Your task to perform on an android device: Search for dining room chairs on Crate & Barrel Image 0: 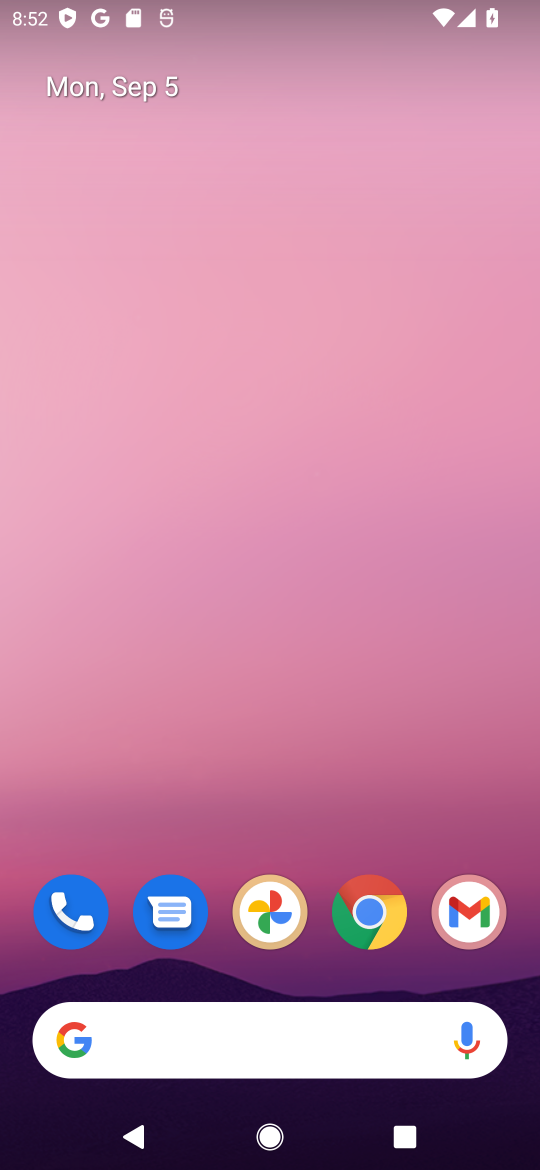
Step 0: click (370, 921)
Your task to perform on an android device: Search for dining room chairs on Crate & Barrel Image 1: 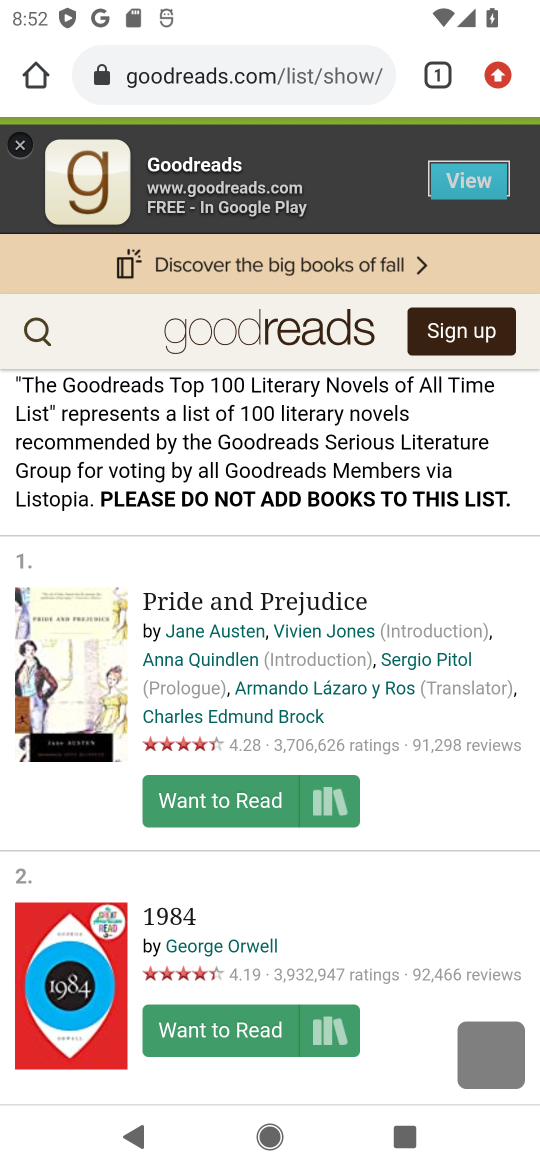
Step 1: click (232, 83)
Your task to perform on an android device: Search for dining room chairs on Crate & Barrel Image 2: 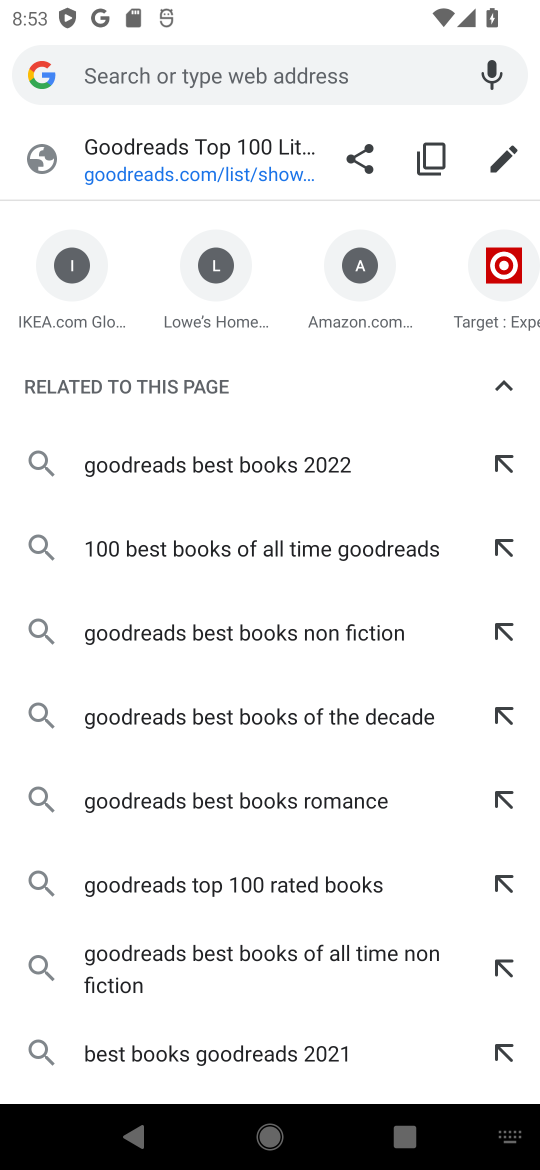
Step 2: type "crate & barrel"
Your task to perform on an android device: Search for dining room chairs on Crate & Barrel Image 3: 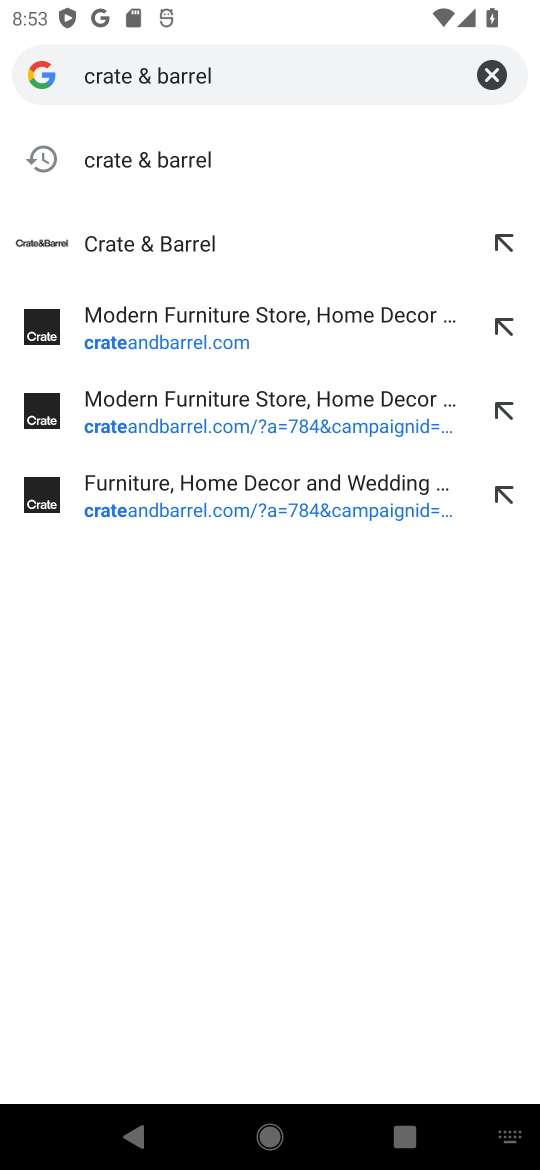
Step 3: press enter
Your task to perform on an android device: Search for dining room chairs on Crate & Barrel Image 4: 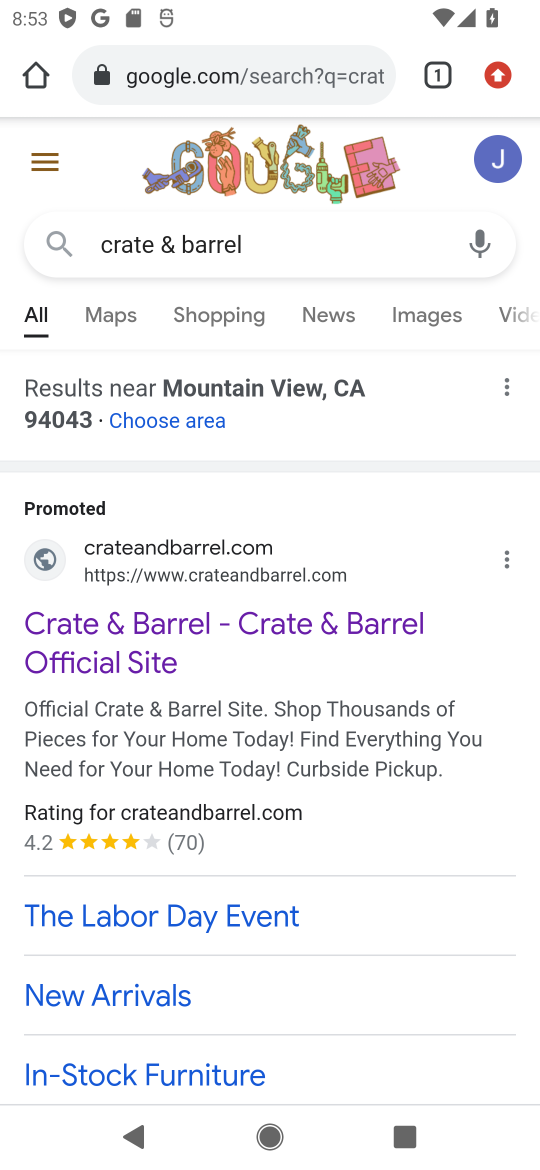
Step 4: click (131, 636)
Your task to perform on an android device: Search for dining room chairs on Crate & Barrel Image 5: 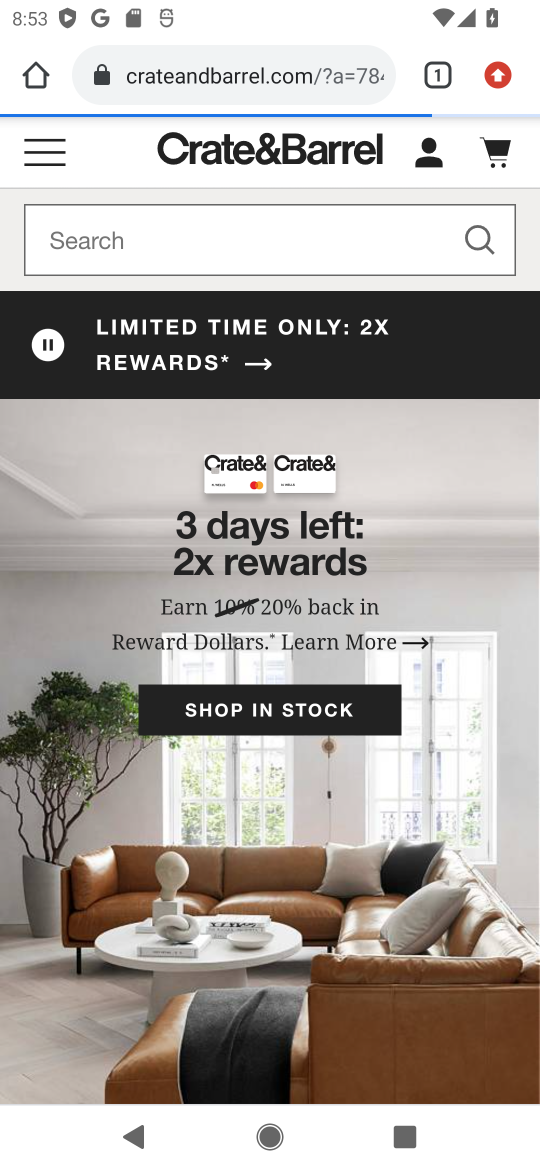
Step 5: click (242, 259)
Your task to perform on an android device: Search for dining room chairs on Crate & Barrel Image 6: 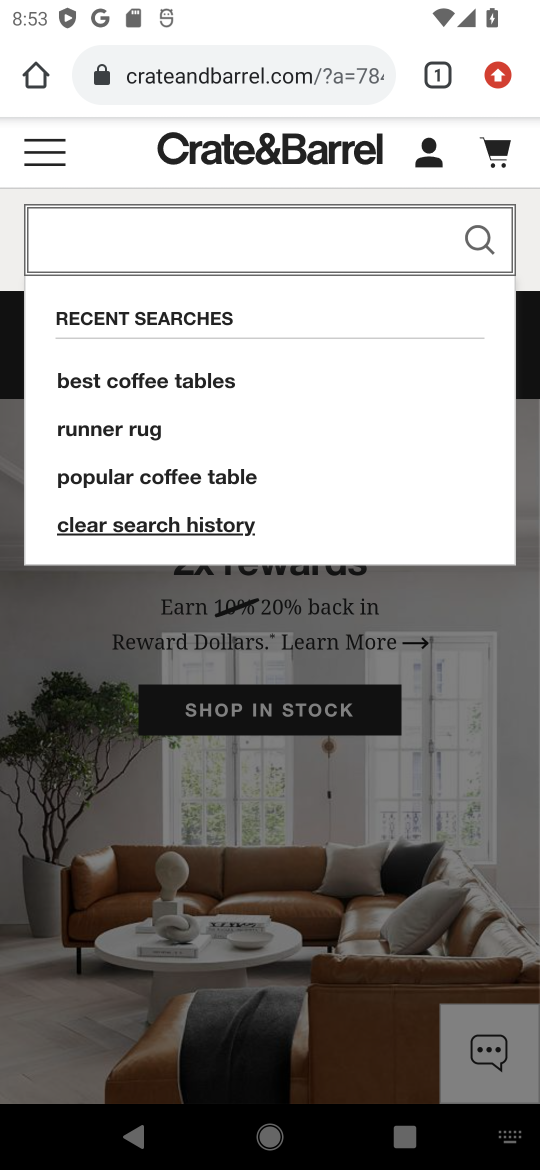
Step 6: type "dining room chairs"
Your task to perform on an android device: Search for dining room chairs on Crate & Barrel Image 7: 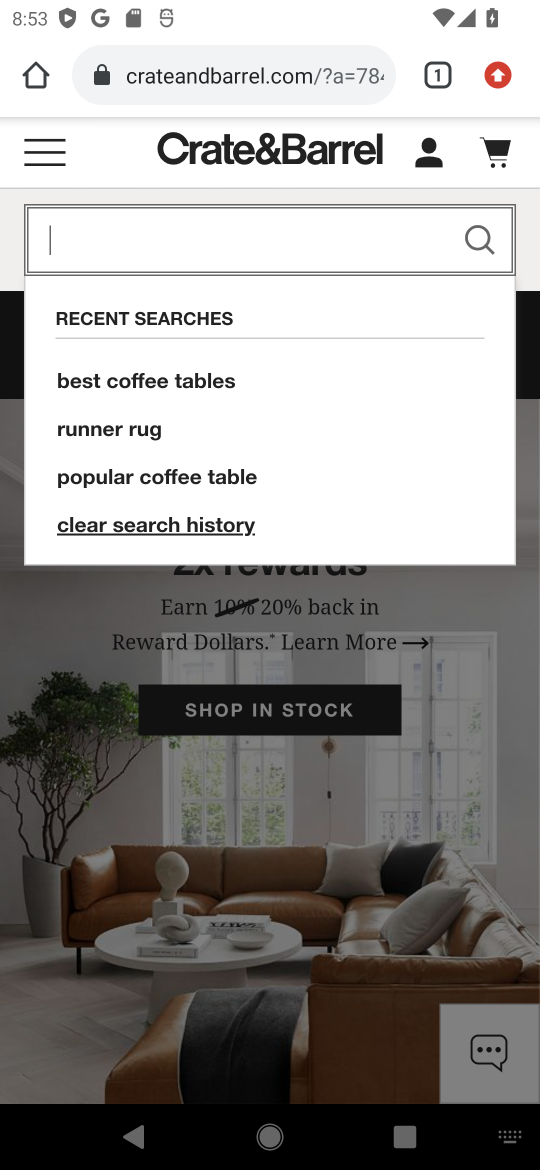
Step 7: type ""
Your task to perform on an android device: Search for dining room chairs on Crate & Barrel Image 8: 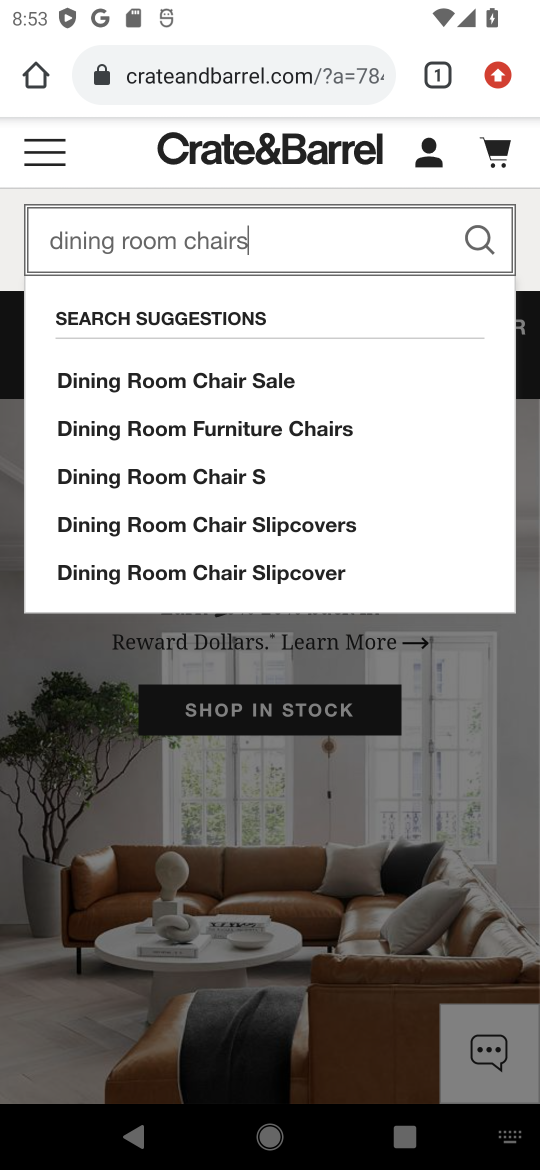
Step 8: press enter
Your task to perform on an android device: Search for dining room chairs on Crate & Barrel Image 9: 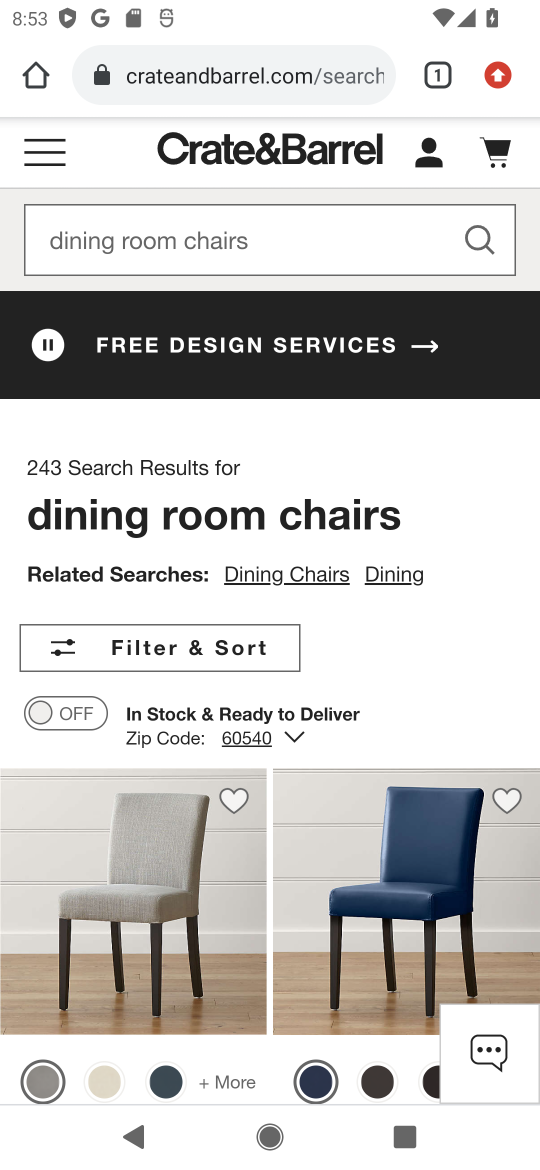
Step 9: task complete